Your task to perform on an android device: Go to Amazon Image 0: 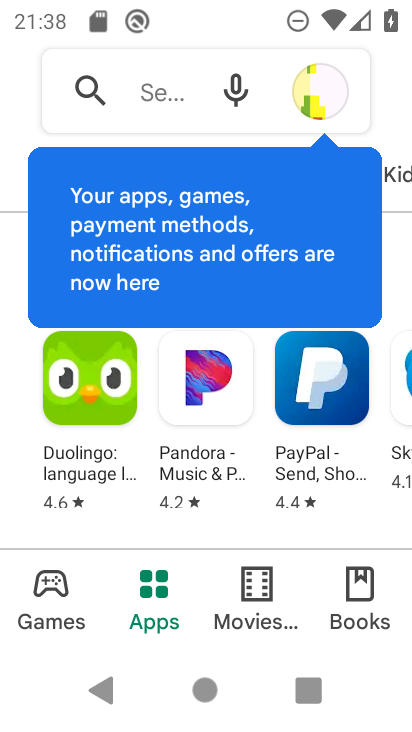
Step 0: press home button
Your task to perform on an android device: Go to Amazon Image 1: 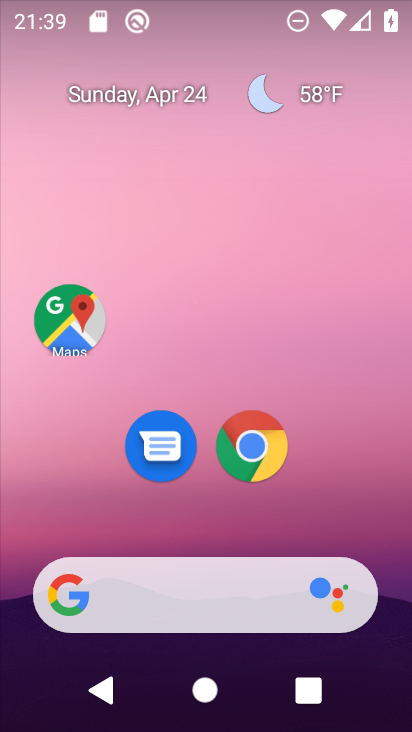
Step 1: click (248, 456)
Your task to perform on an android device: Go to Amazon Image 2: 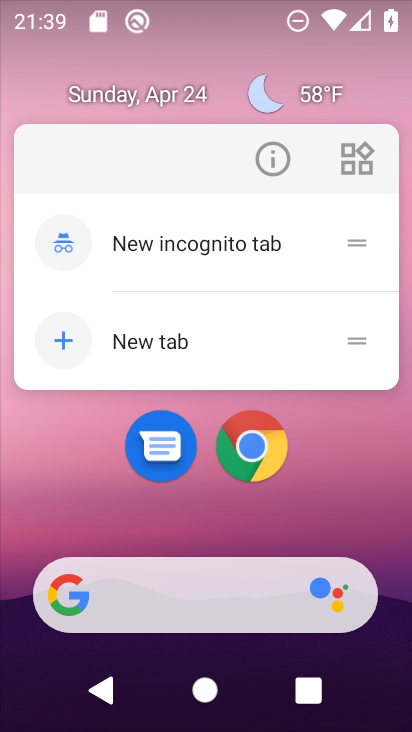
Step 2: click (251, 452)
Your task to perform on an android device: Go to Amazon Image 3: 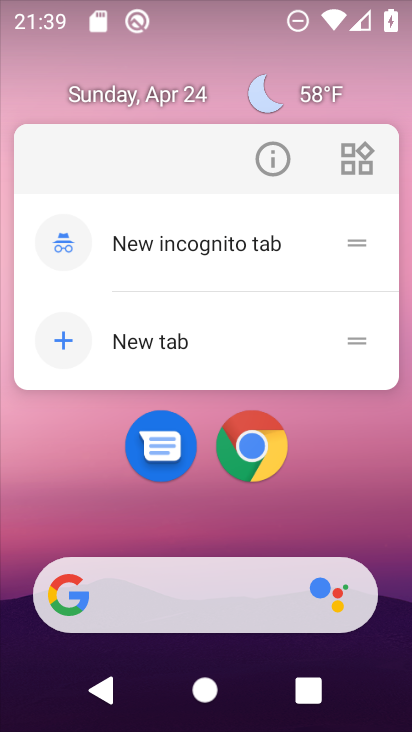
Step 3: click (244, 455)
Your task to perform on an android device: Go to Amazon Image 4: 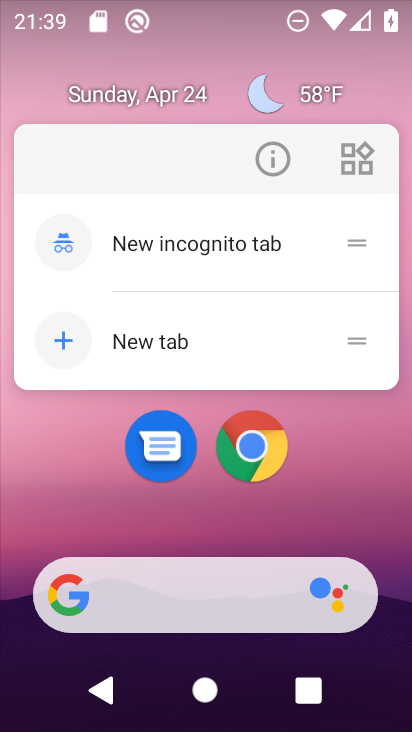
Step 4: click (260, 447)
Your task to perform on an android device: Go to Amazon Image 5: 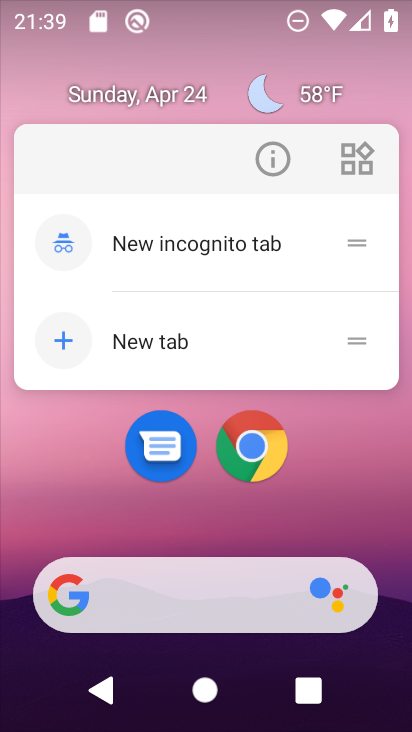
Step 5: click (256, 444)
Your task to perform on an android device: Go to Amazon Image 6: 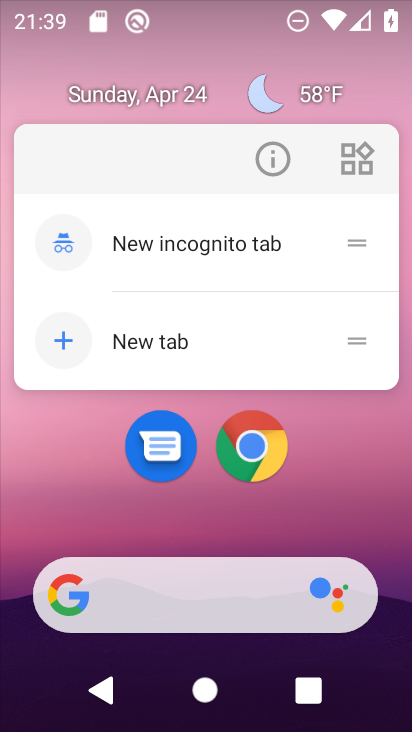
Step 6: click (251, 464)
Your task to perform on an android device: Go to Amazon Image 7: 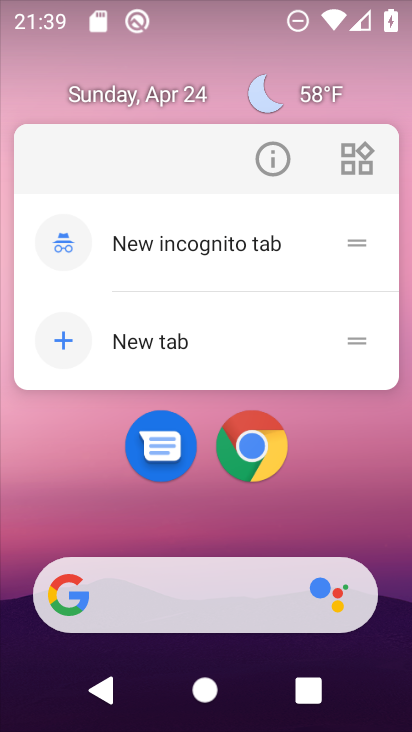
Step 7: click (246, 454)
Your task to perform on an android device: Go to Amazon Image 8: 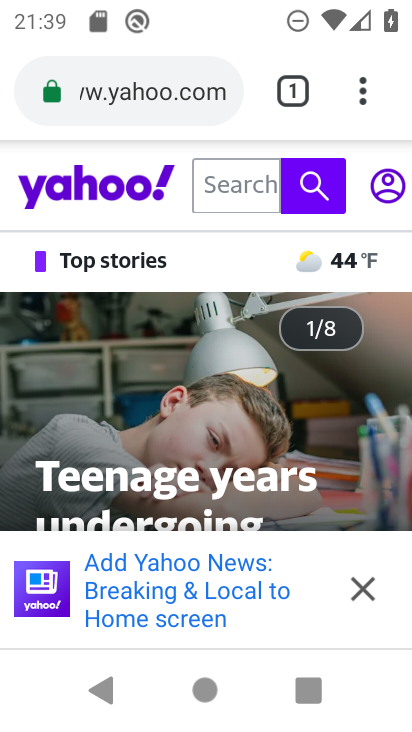
Step 8: drag from (355, 106) to (97, 183)
Your task to perform on an android device: Go to Amazon Image 9: 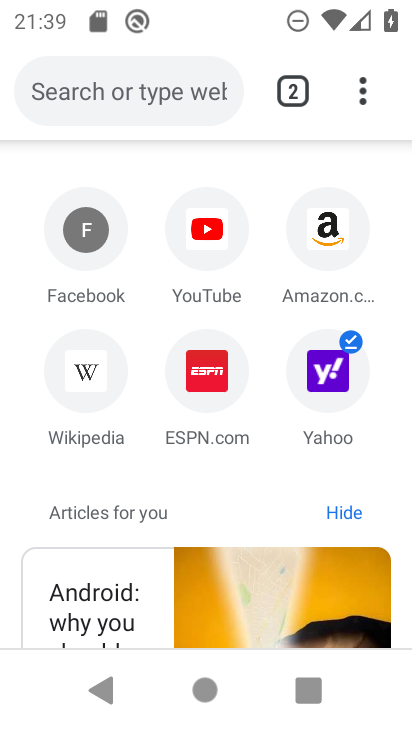
Step 9: click (332, 233)
Your task to perform on an android device: Go to Amazon Image 10: 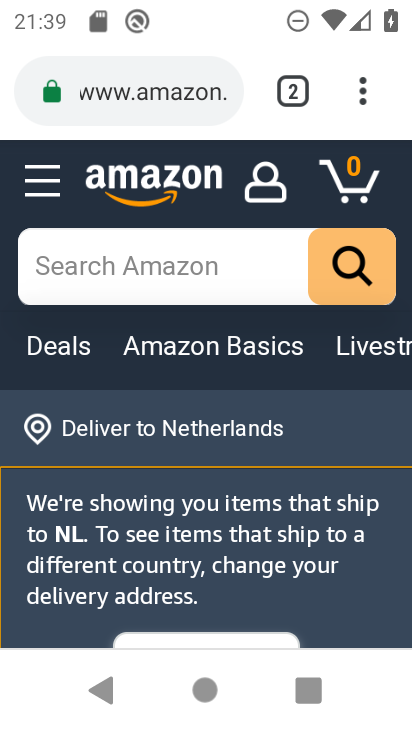
Step 10: task complete